Your task to perform on an android device: open app "ColorNote Notepad Notes" (install if not already installed) and enter user name: "unbridled@gmail.com" and password: "regularly" Image 0: 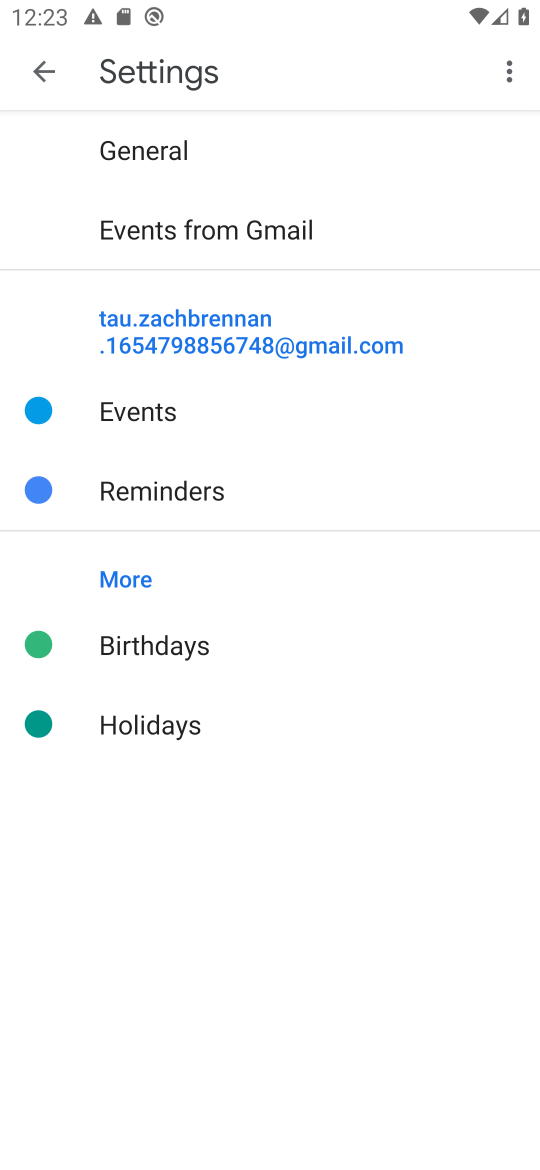
Step 0: press home button
Your task to perform on an android device: open app "ColorNote Notepad Notes" (install if not already installed) and enter user name: "unbridled@gmail.com" and password: "regularly" Image 1: 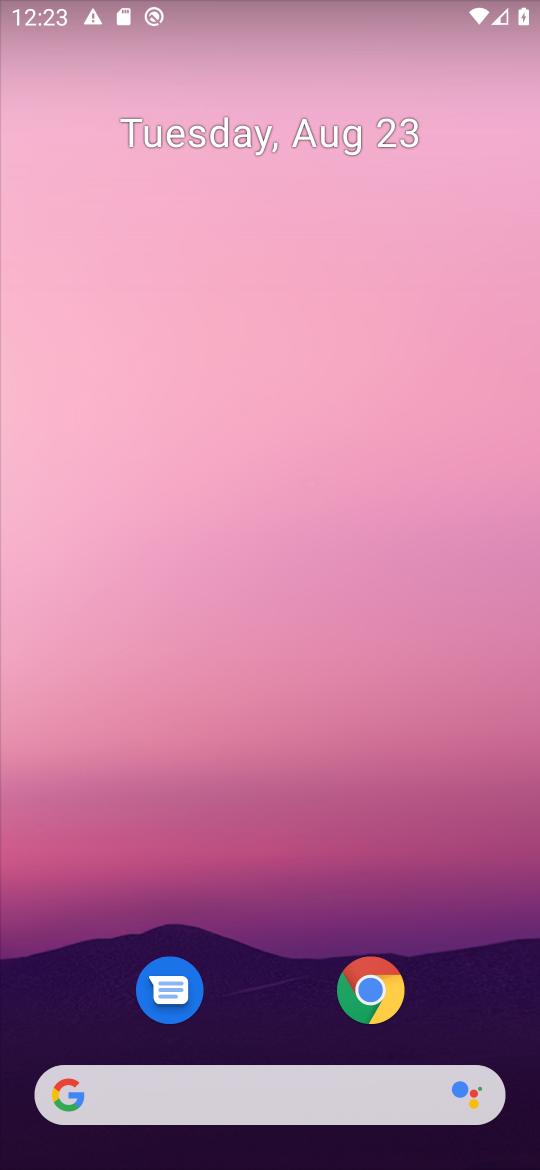
Step 1: drag from (227, 1079) to (287, 397)
Your task to perform on an android device: open app "ColorNote Notepad Notes" (install if not already installed) and enter user name: "unbridled@gmail.com" and password: "regularly" Image 2: 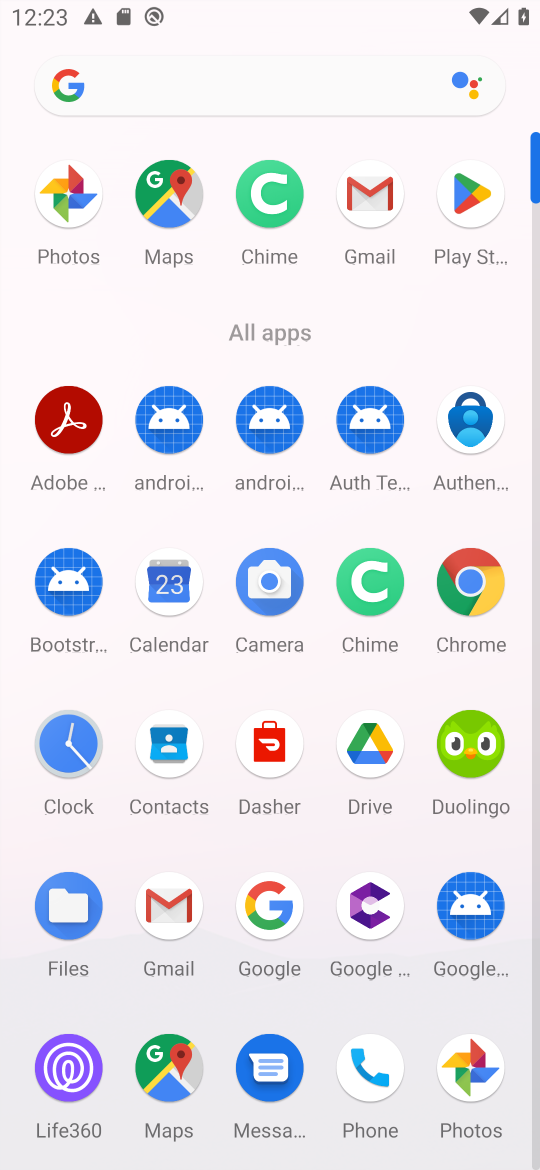
Step 2: click (461, 188)
Your task to perform on an android device: open app "ColorNote Notepad Notes" (install if not already installed) and enter user name: "unbridled@gmail.com" and password: "regularly" Image 3: 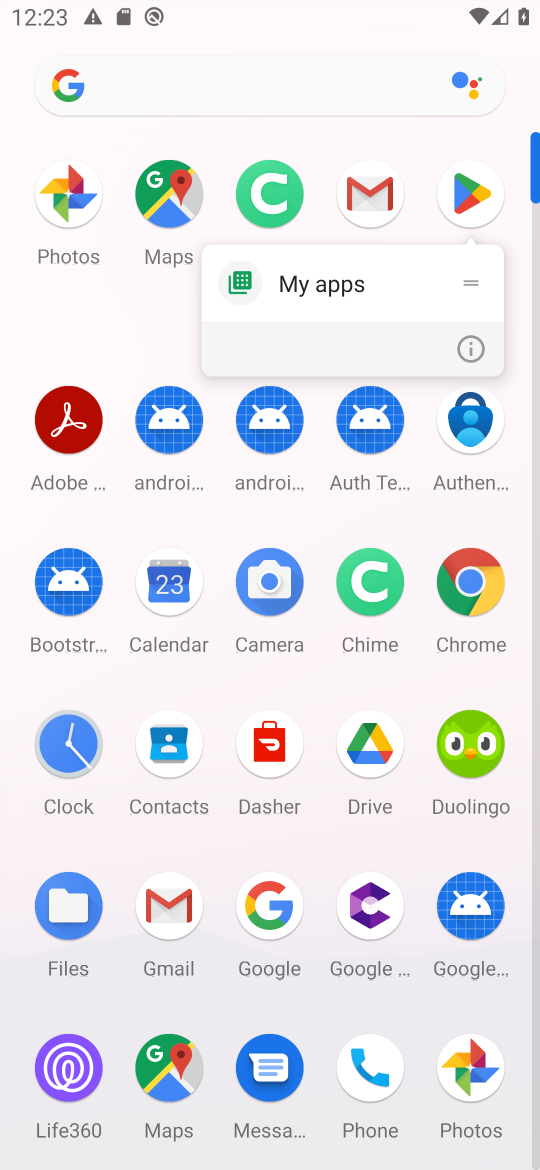
Step 3: click (461, 188)
Your task to perform on an android device: open app "ColorNote Notepad Notes" (install if not already installed) and enter user name: "unbridled@gmail.com" and password: "regularly" Image 4: 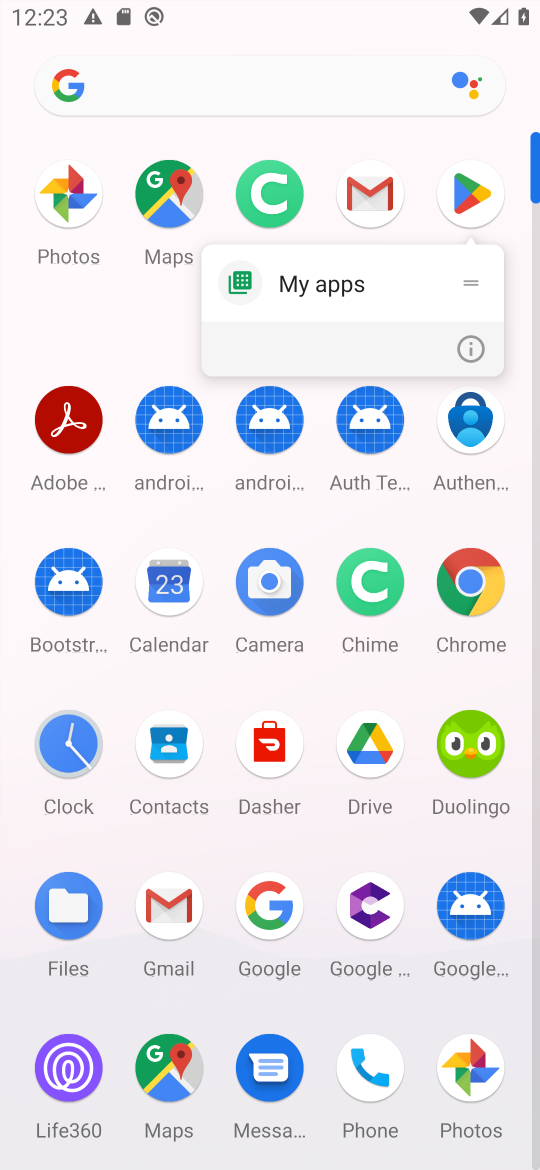
Step 4: click (462, 190)
Your task to perform on an android device: open app "ColorNote Notepad Notes" (install if not already installed) and enter user name: "unbridled@gmail.com" and password: "regularly" Image 5: 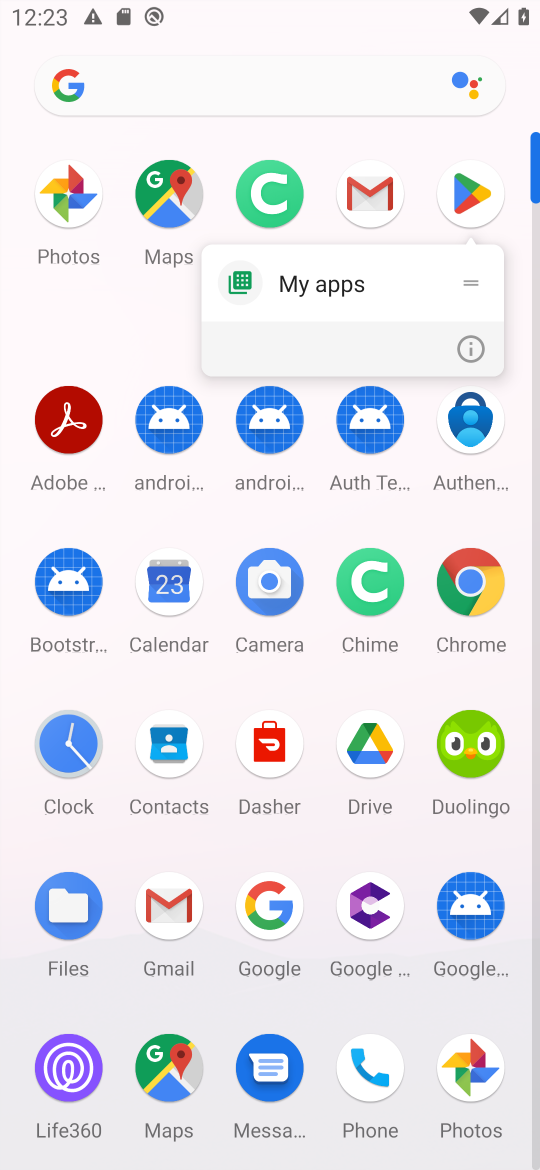
Step 5: click (462, 179)
Your task to perform on an android device: open app "ColorNote Notepad Notes" (install if not already installed) and enter user name: "unbridled@gmail.com" and password: "regularly" Image 6: 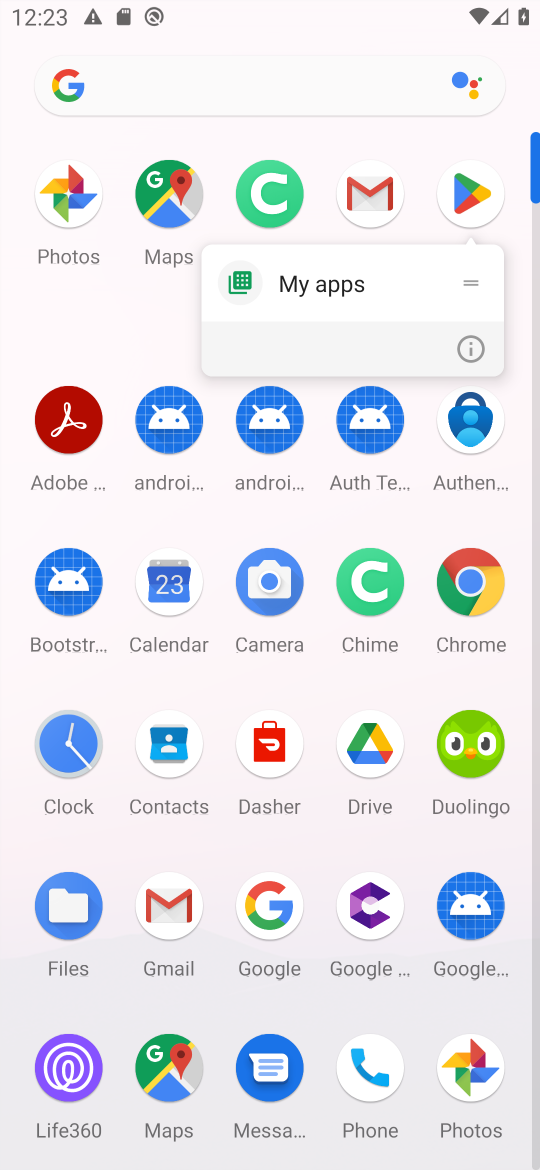
Step 6: click (462, 194)
Your task to perform on an android device: open app "ColorNote Notepad Notes" (install if not already installed) and enter user name: "unbridled@gmail.com" and password: "regularly" Image 7: 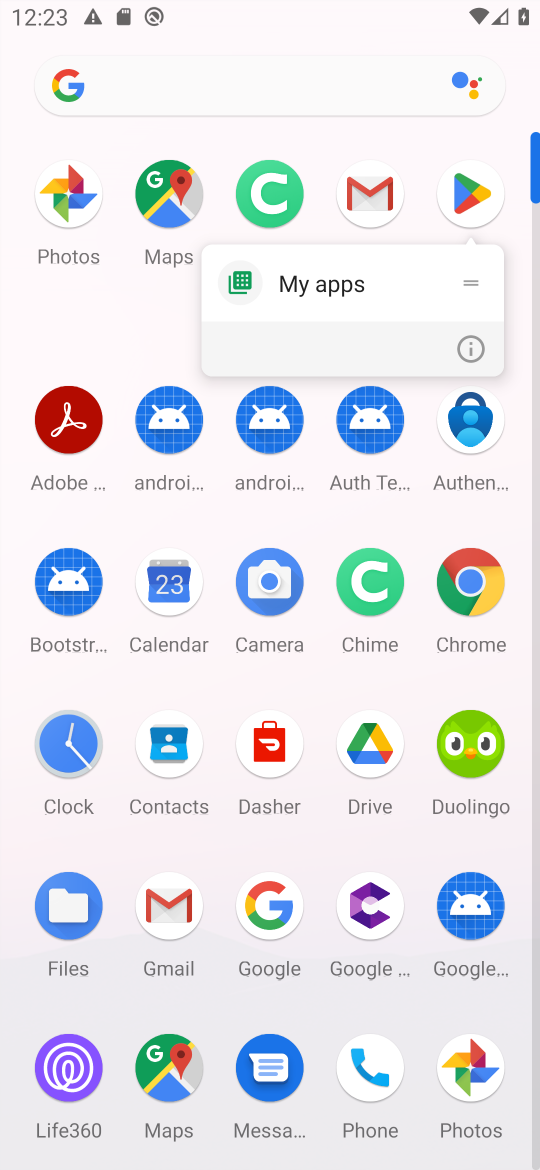
Step 7: click (462, 194)
Your task to perform on an android device: open app "ColorNote Notepad Notes" (install if not already installed) and enter user name: "unbridled@gmail.com" and password: "regularly" Image 8: 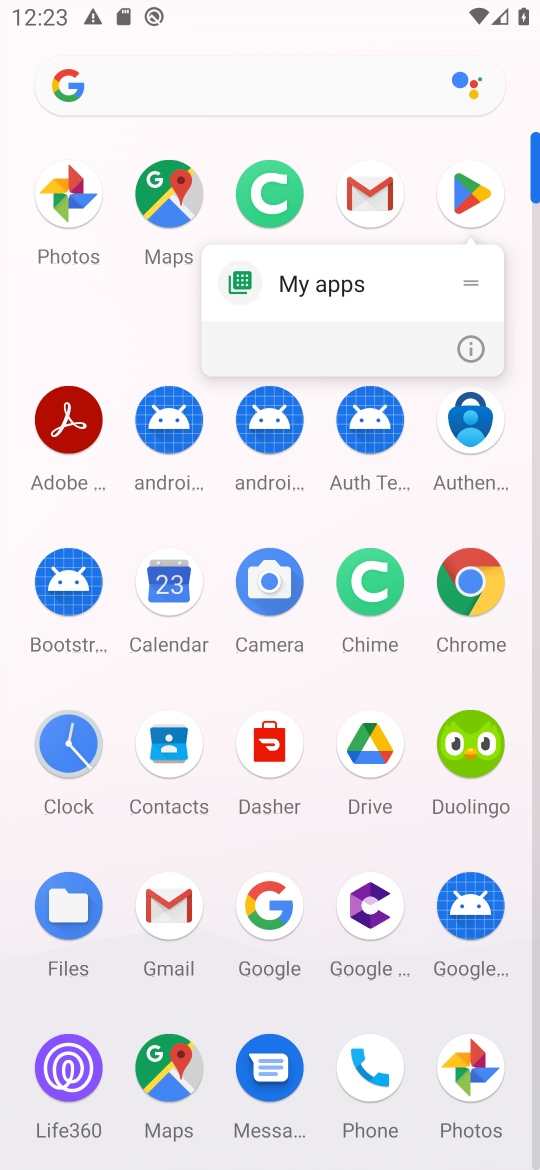
Step 8: drag from (236, 1029) to (313, 449)
Your task to perform on an android device: open app "ColorNote Notepad Notes" (install if not already installed) and enter user name: "unbridled@gmail.com" and password: "regularly" Image 9: 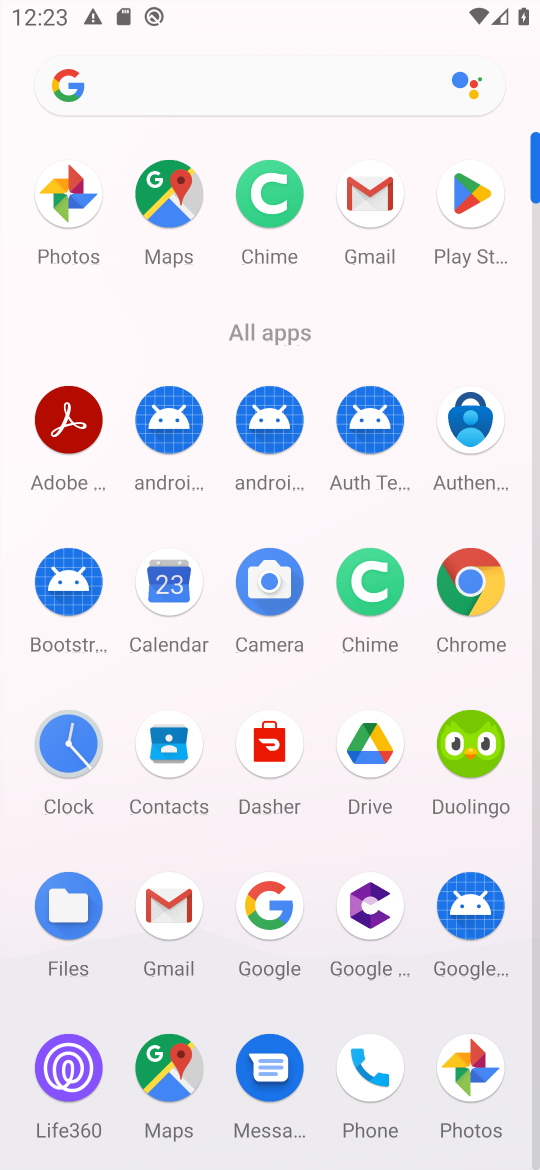
Step 9: drag from (222, 967) to (274, 355)
Your task to perform on an android device: open app "ColorNote Notepad Notes" (install if not already installed) and enter user name: "unbridled@gmail.com" and password: "regularly" Image 10: 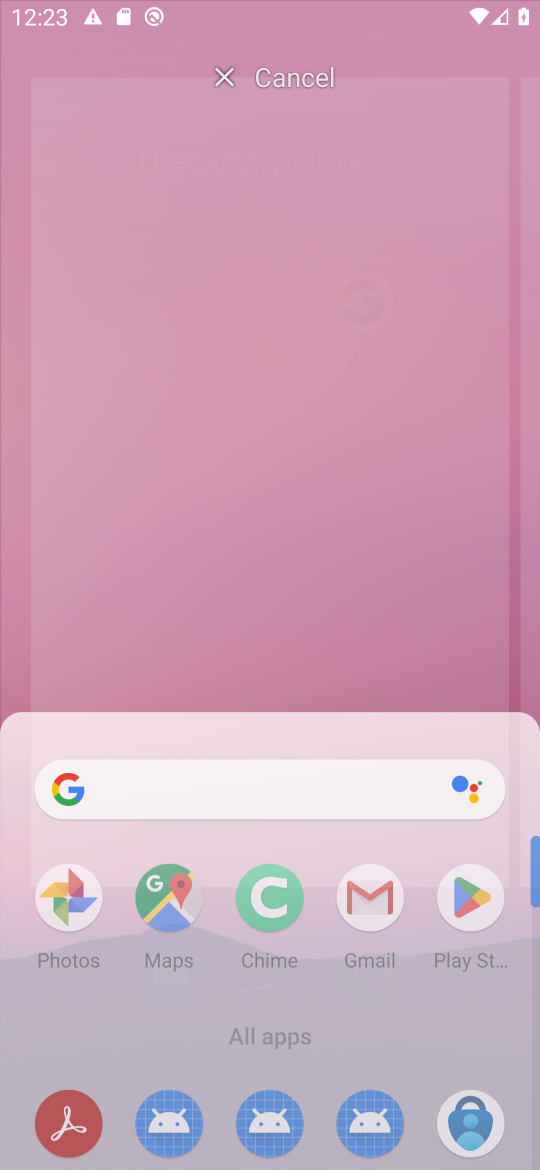
Step 10: click (460, 184)
Your task to perform on an android device: open app "ColorNote Notepad Notes" (install if not already installed) and enter user name: "unbridled@gmail.com" and password: "regularly" Image 11: 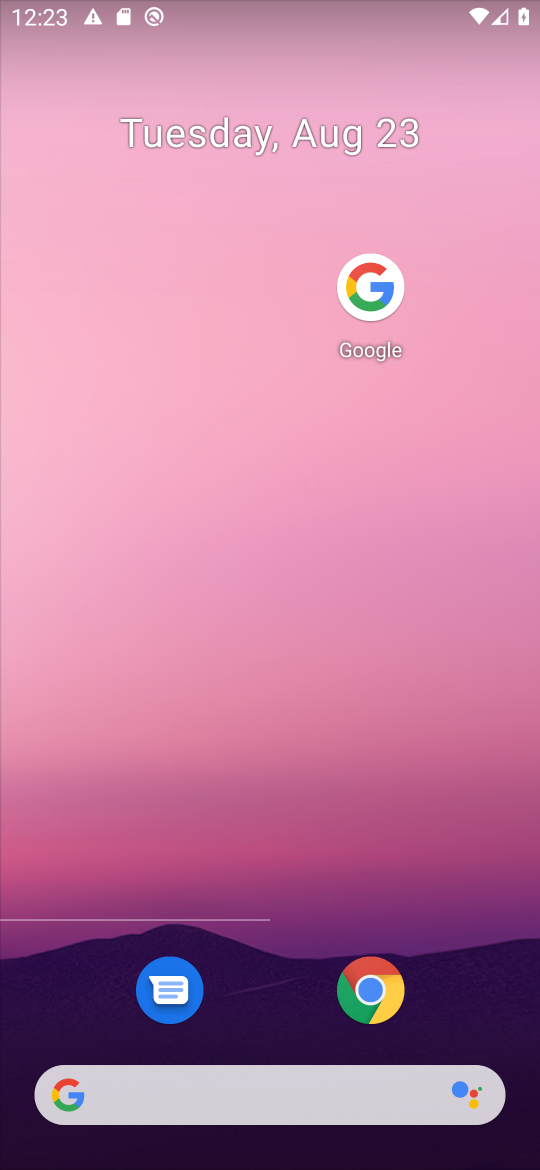
Step 11: drag from (314, 597) to (341, 311)
Your task to perform on an android device: open app "ColorNote Notepad Notes" (install if not already installed) and enter user name: "unbridled@gmail.com" and password: "regularly" Image 12: 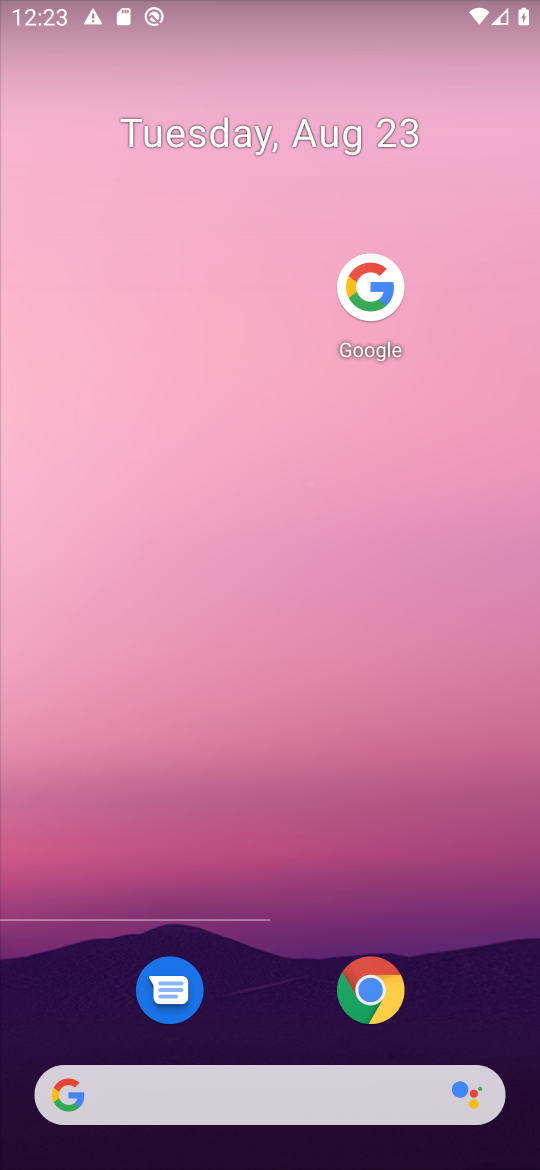
Step 12: drag from (254, 973) to (238, 281)
Your task to perform on an android device: open app "ColorNote Notepad Notes" (install if not already installed) and enter user name: "unbridled@gmail.com" and password: "regularly" Image 13: 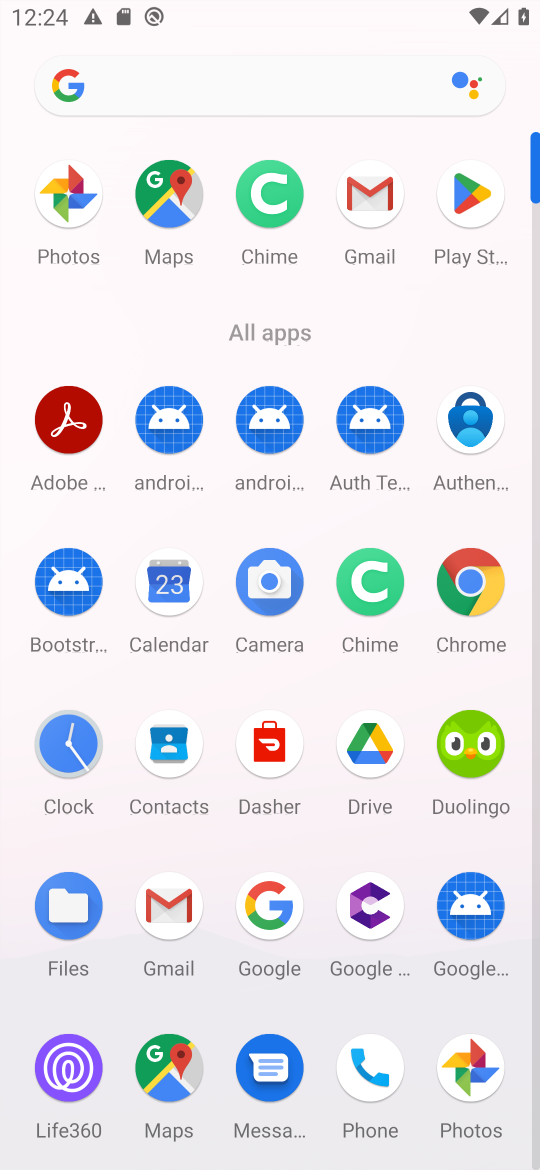
Step 13: drag from (328, 1023) to (343, 407)
Your task to perform on an android device: open app "ColorNote Notepad Notes" (install if not already installed) and enter user name: "unbridled@gmail.com" and password: "regularly" Image 14: 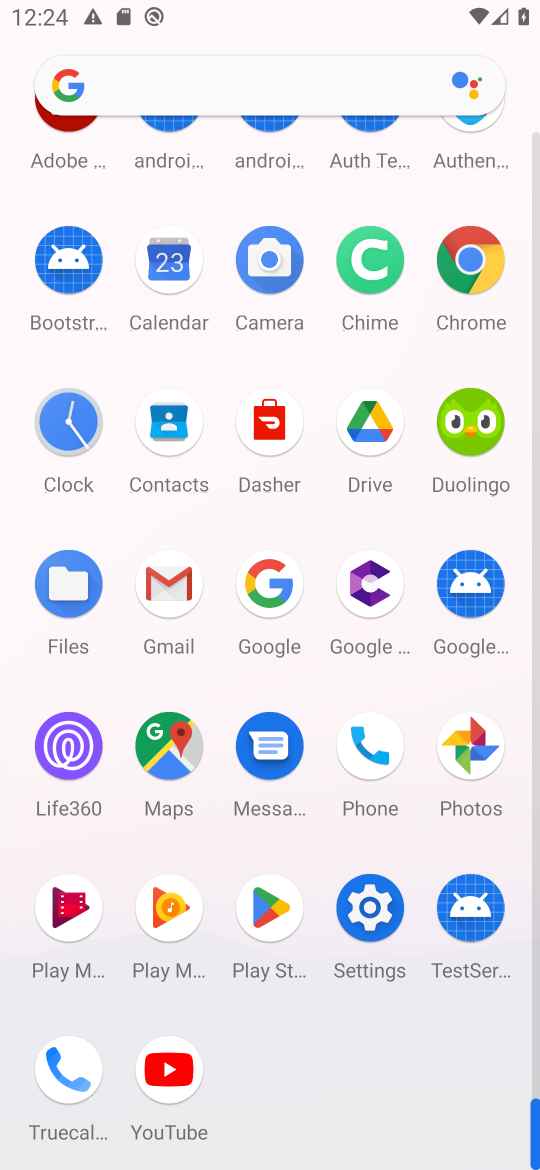
Step 14: click (272, 900)
Your task to perform on an android device: open app "ColorNote Notepad Notes" (install if not already installed) and enter user name: "unbridled@gmail.com" and password: "regularly" Image 15: 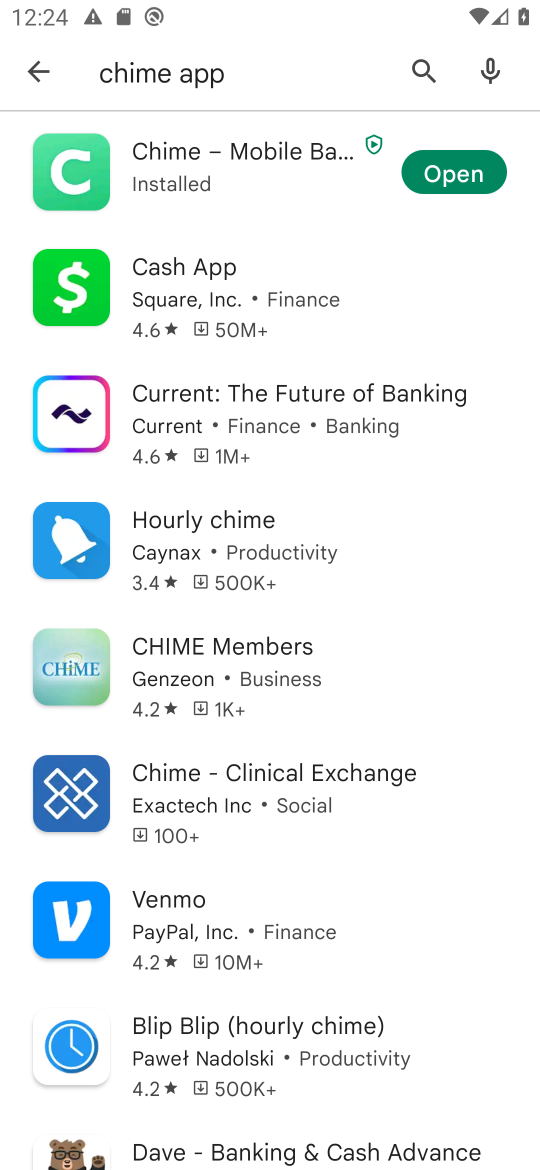
Step 15: click (34, 43)
Your task to perform on an android device: open app "ColorNote Notepad Notes" (install if not already installed) and enter user name: "unbridled@gmail.com" and password: "regularly" Image 16: 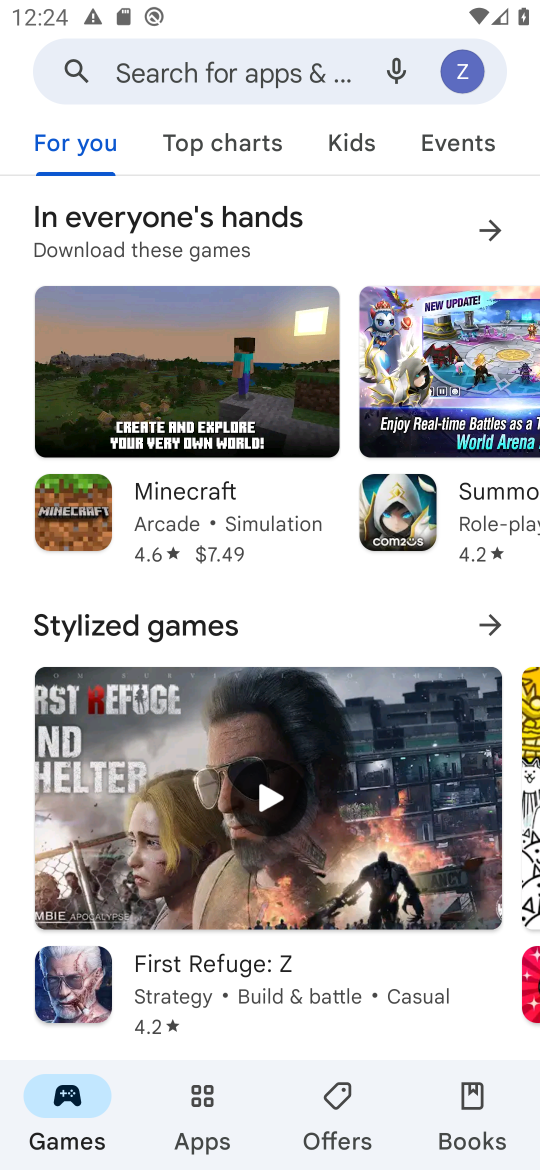
Step 16: click (240, 60)
Your task to perform on an android device: open app "ColorNote Notepad Notes" (install if not already installed) and enter user name: "unbridled@gmail.com" and password: "regularly" Image 17: 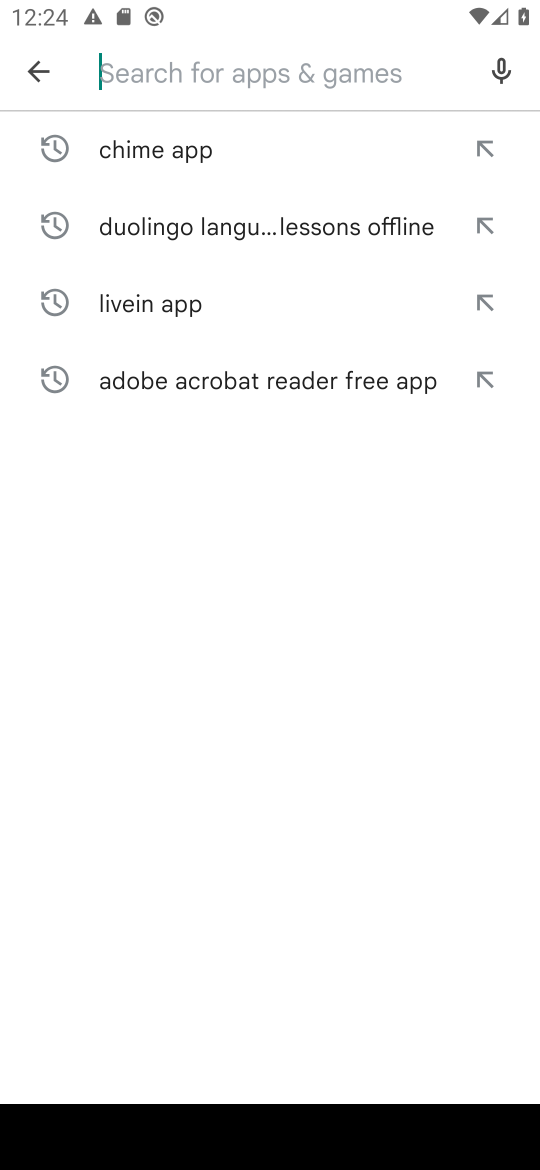
Step 17: type "ColorNote Notepad Notes "
Your task to perform on an android device: open app "ColorNote Notepad Notes" (install if not already installed) and enter user name: "unbridled@gmail.com" and password: "regularly" Image 18: 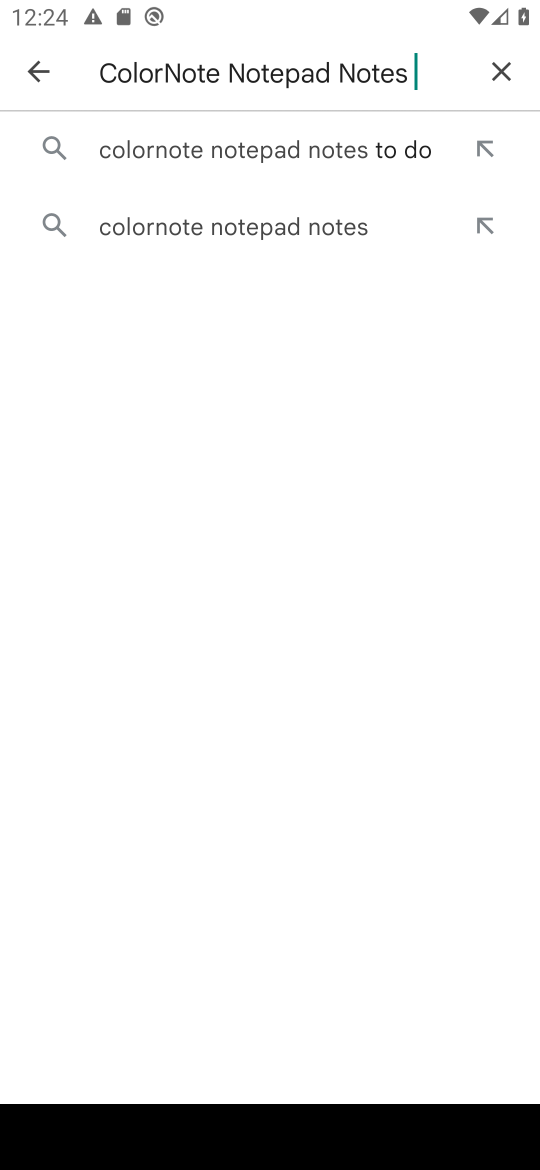
Step 18: click (171, 151)
Your task to perform on an android device: open app "ColorNote Notepad Notes" (install if not already installed) and enter user name: "unbridled@gmail.com" and password: "regularly" Image 19: 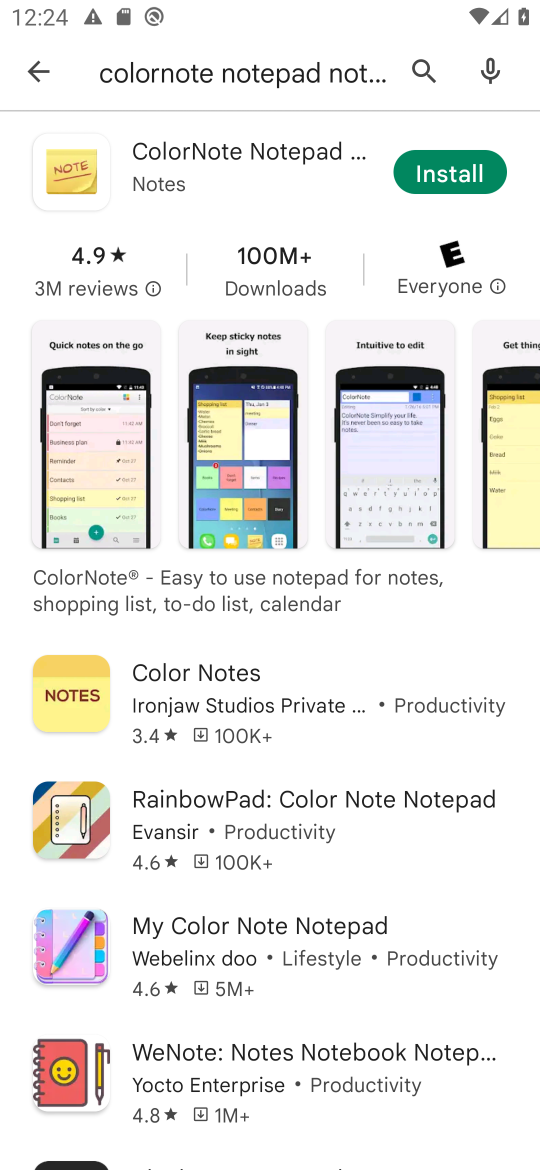
Step 19: click (436, 175)
Your task to perform on an android device: open app "ColorNote Notepad Notes" (install if not already installed) and enter user name: "unbridled@gmail.com" and password: "regularly" Image 20: 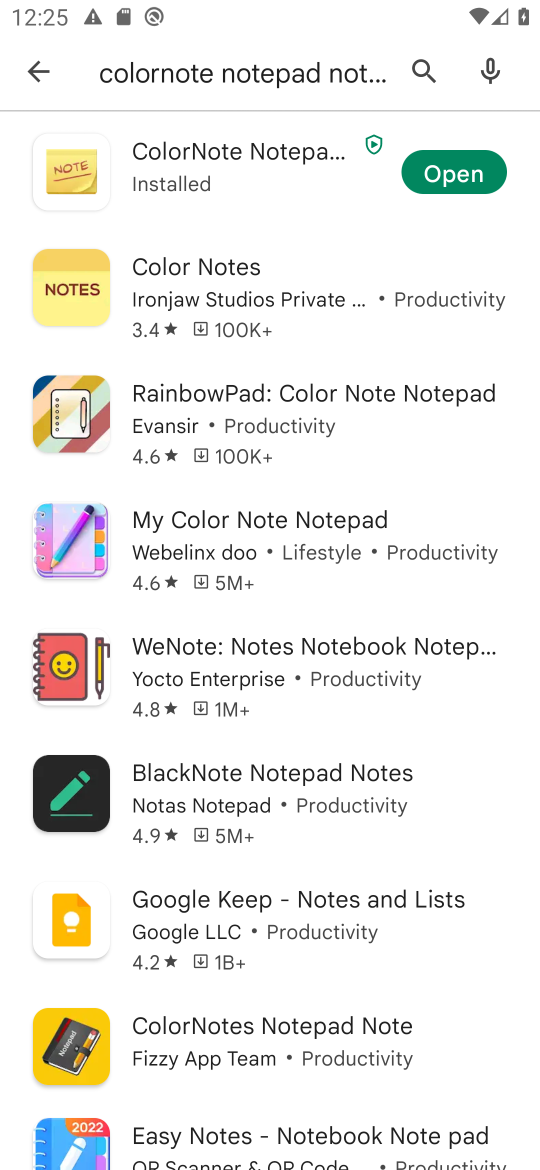
Step 20: click (457, 169)
Your task to perform on an android device: open app "ColorNote Notepad Notes" (install if not already installed) and enter user name: "unbridled@gmail.com" and password: "regularly" Image 21: 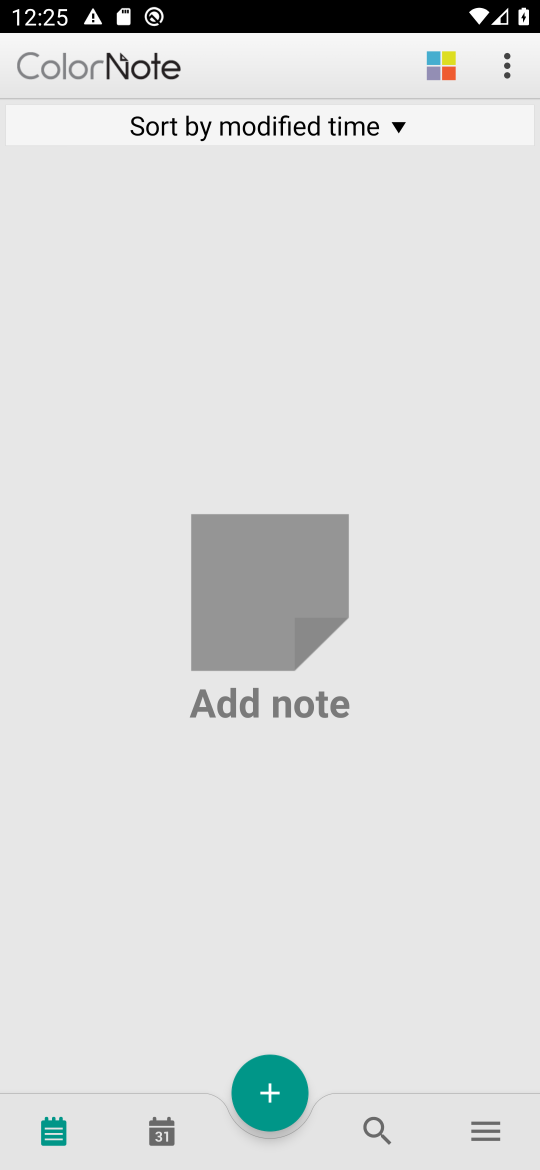
Step 21: task complete